Your task to perform on an android device: Open Yahoo.com Image 0: 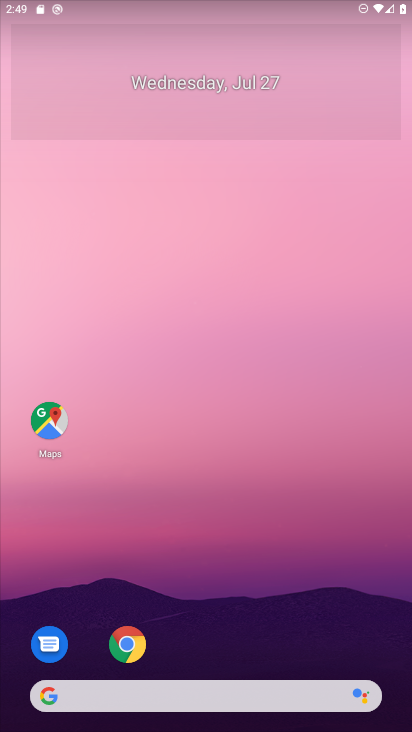
Step 0: click (138, 649)
Your task to perform on an android device: Open Yahoo.com Image 1: 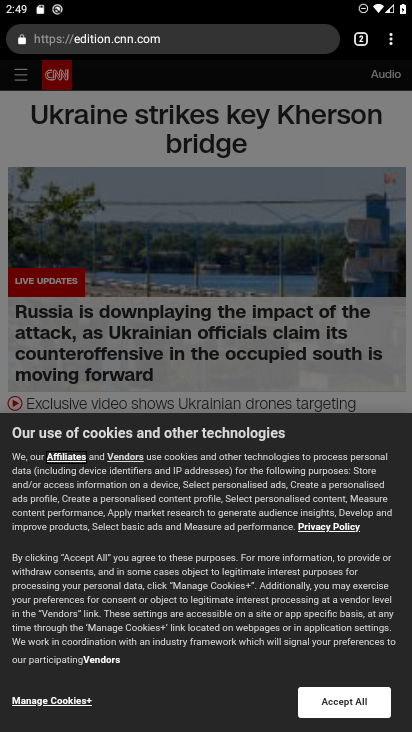
Step 1: click (201, 39)
Your task to perform on an android device: Open Yahoo.com Image 2: 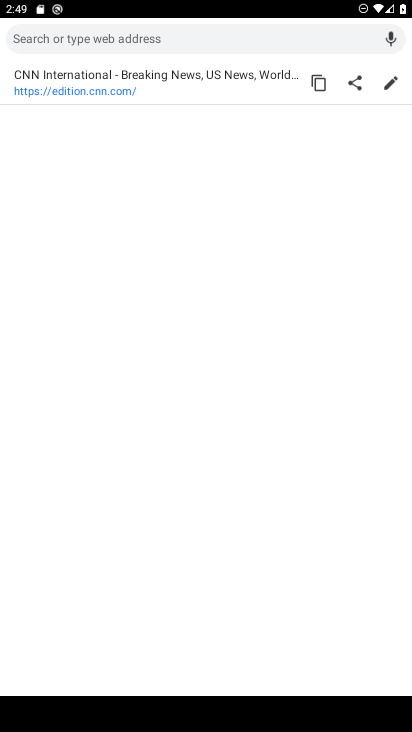
Step 2: type "yahoo.com"
Your task to perform on an android device: Open Yahoo.com Image 3: 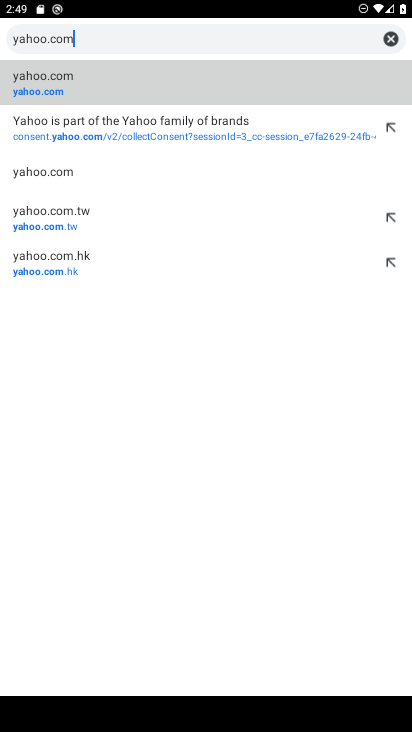
Step 3: click (98, 87)
Your task to perform on an android device: Open Yahoo.com Image 4: 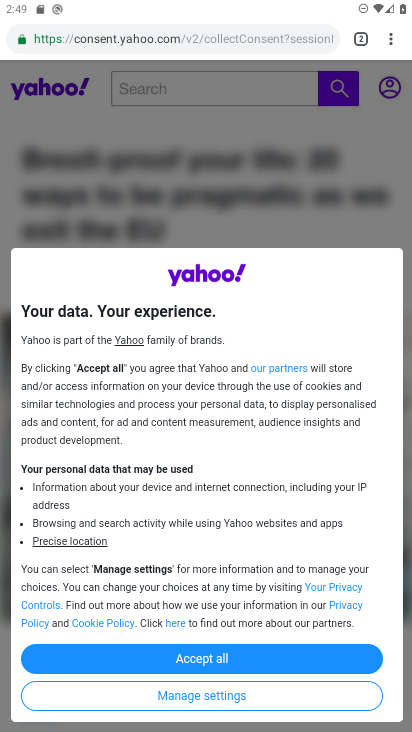
Step 4: task complete